Your task to perform on an android device: see sites visited before in the chrome app Image 0: 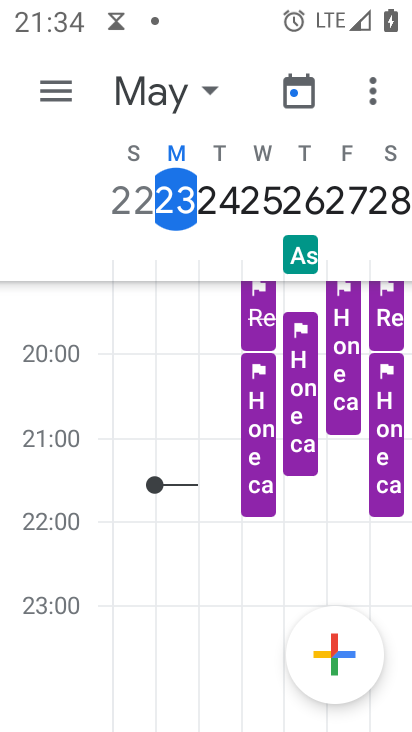
Step 0: press home button
Your task to perform on an android device: see sites visited before in the chrome app Image 1: 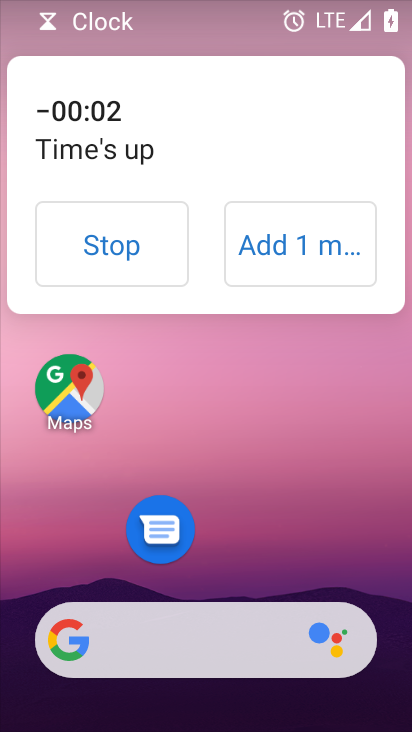
Step 1: click (138, 269)
Your task to perform on an android device: see sites visited before in the chrome app Image 2: 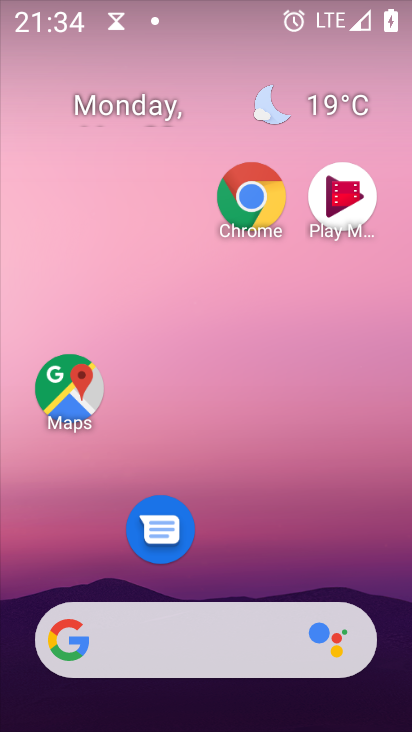
Step 2: click (255, 193)
Your task to perform on an android device: see sites visited before in the chrome app Image 3: 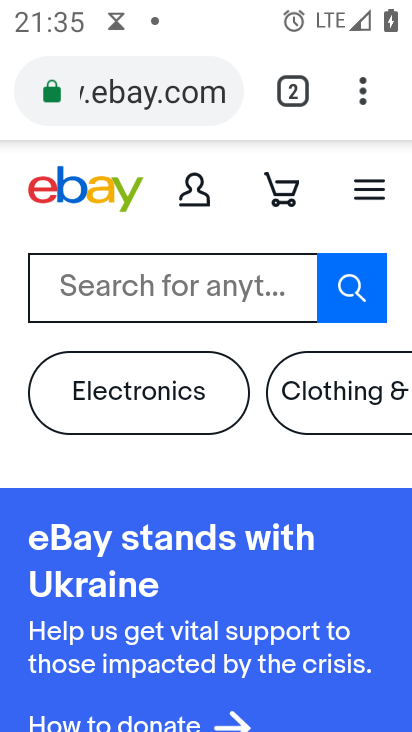
Step 3: click (365, 88)
Your task to perform on an android device: see sites visited before in the chrome app Image 4: 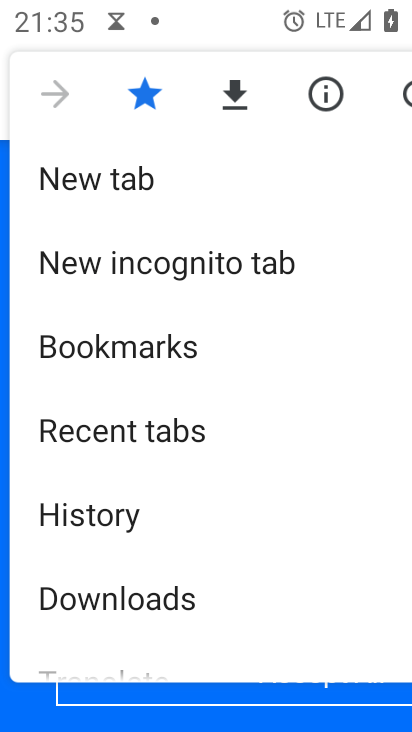
Step 4: click (96, 527)
Your task to perform on an android device: see sites visited before in the chrome app Image 5: 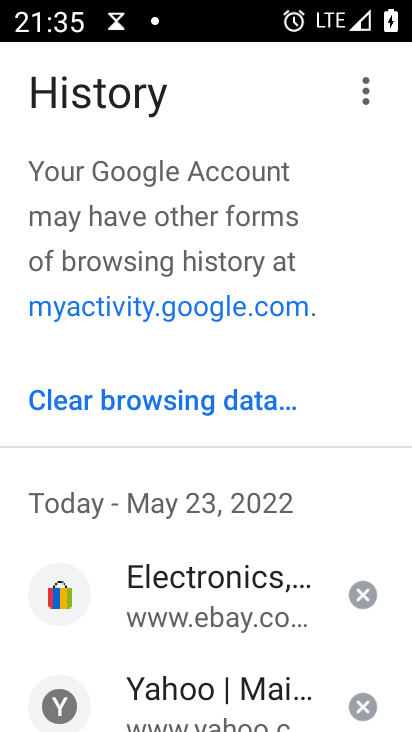
Step 5: task complete